Your task to perform on an android device: Go to internet settings Image 0: 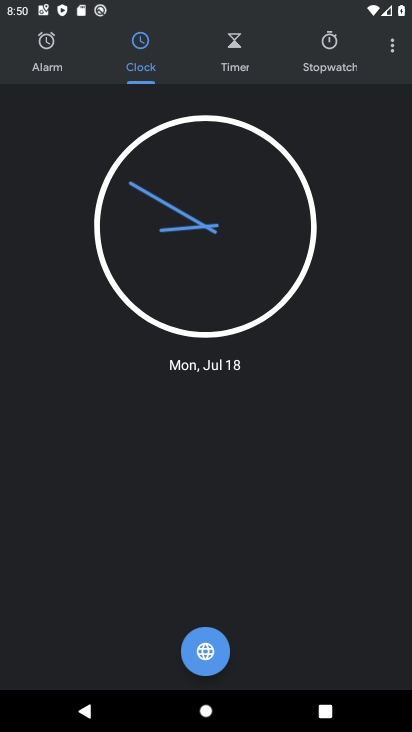
Step 0: press home button
Your task to perform on an android device: Go to internet settings Image 1: 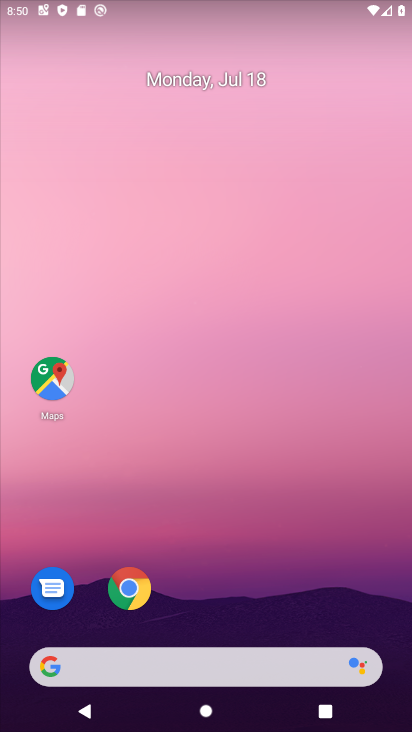
Step 1: drag from (245, 597) to (223, 149)
Your task to perform on an android device: Go to internet settings Image 2: 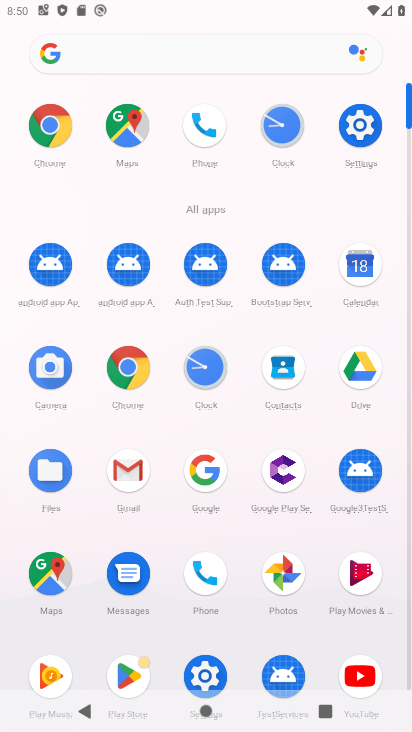
Step 2: click (360, 118)
Your task to perform on an android device: Go to internet settings Image 3: 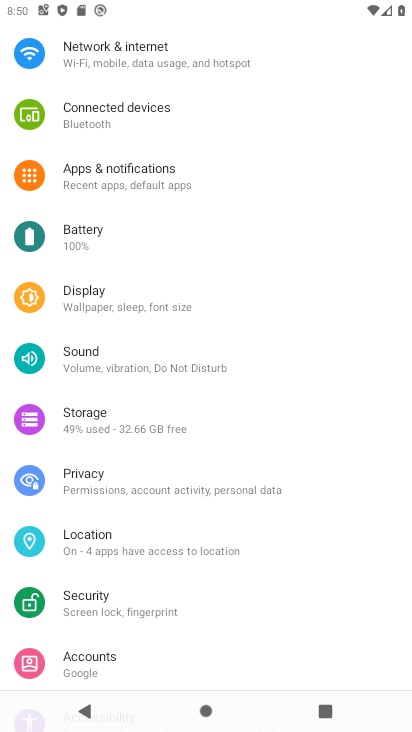
Step 3: click (189, 43)
Your task to perform on an android device: Go to internet settings Image 4: 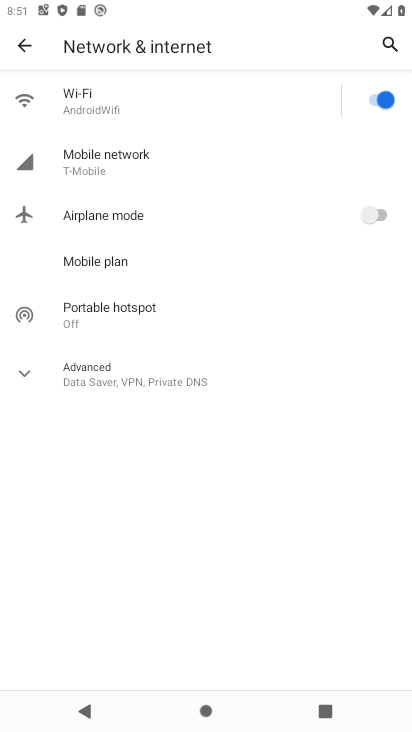
Step 4: task complete